Your task to perform on an android device: Open Youtube and go to the subscriptions tab Image 0: 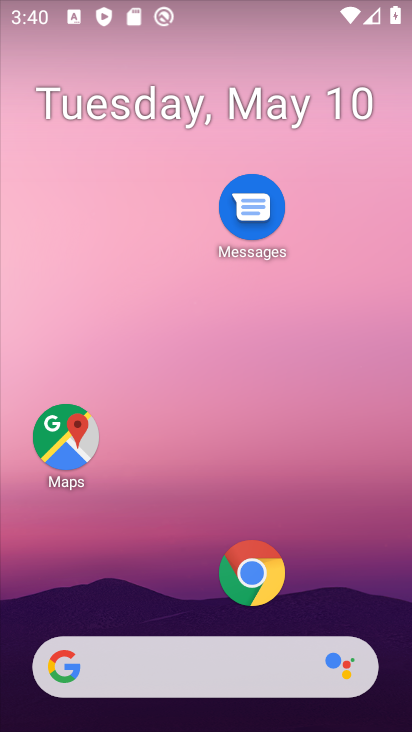
Step 0: drag from (243, 250) to (293, 130)
Your task to perform on an android device: Open Youtube and go to the subscriptions tab Image 1: 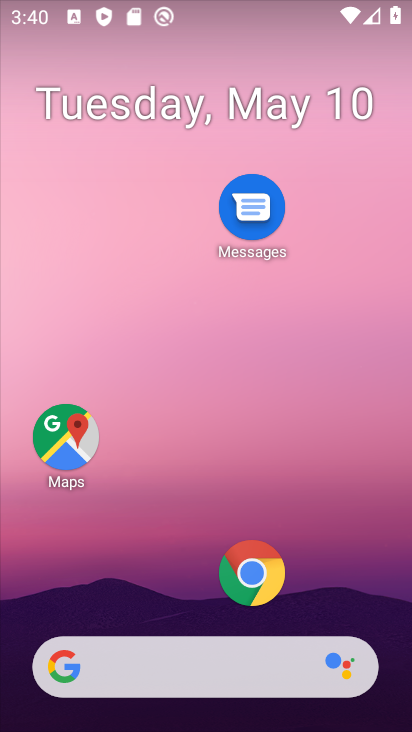
Step 1: drag from (310, 592) to (315, 158)
Your task to perform on an android device: Open Youtube and go to the subscriptions tab Image 2: 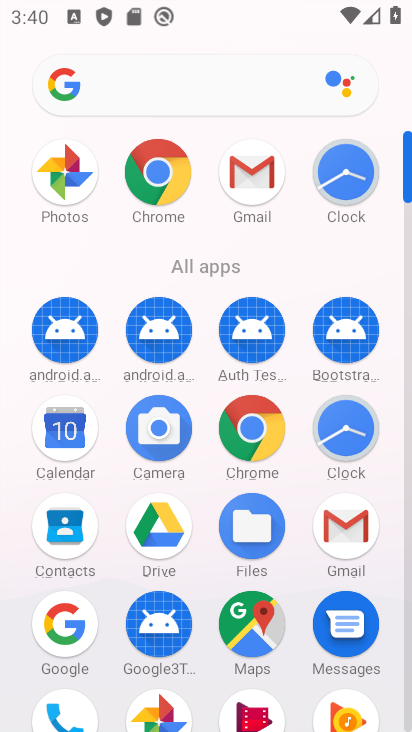
Step 2: drag from (194, 652) to (224, 214)
Your task to perform on an android device: Open Youtube and go to the subscriptions tab Image 3: 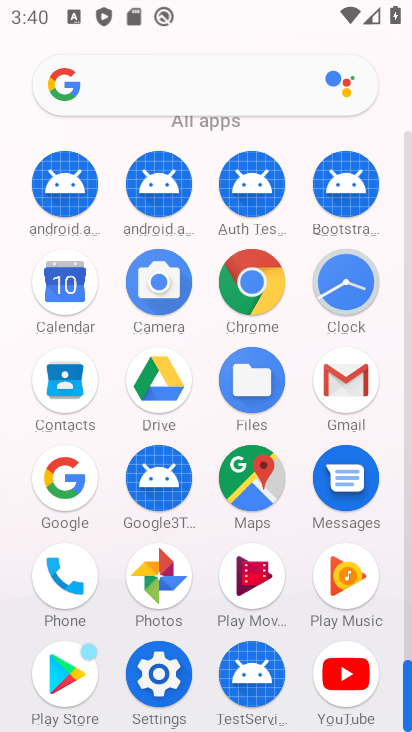
Step 3: click (332, 642)
Your task to perform on an android device: Open Youtube and go to the subscriptions tab Image 4: 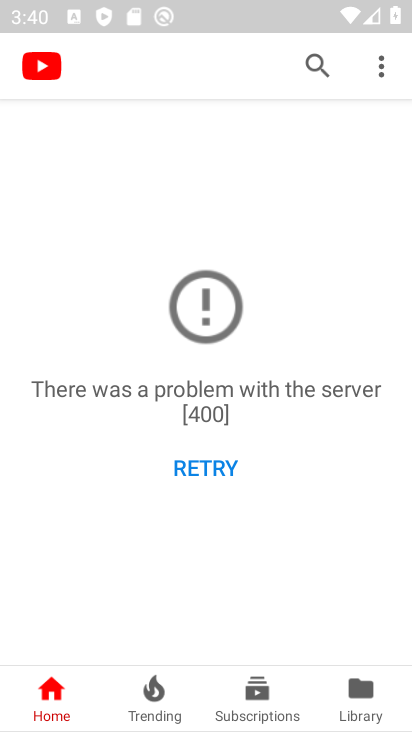
Step 4: task complete